Your task to perform on an android device: turn off javascript in the chrome app Image 0: 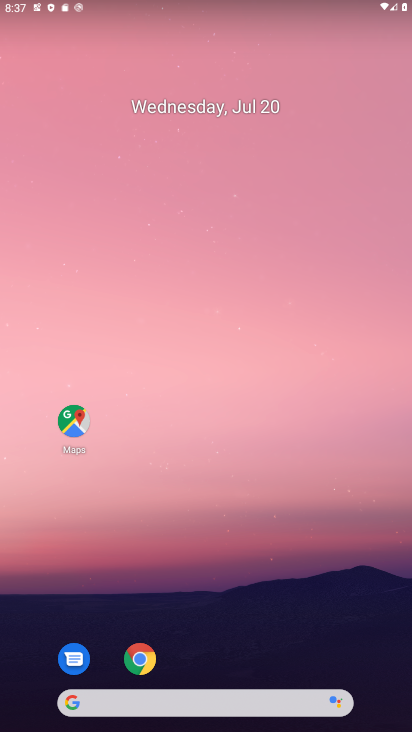
Step 0: drag from (252, 635) to (250, 146)
Your task to perform on an android device: turn off javascript in the chrome app Image 1: 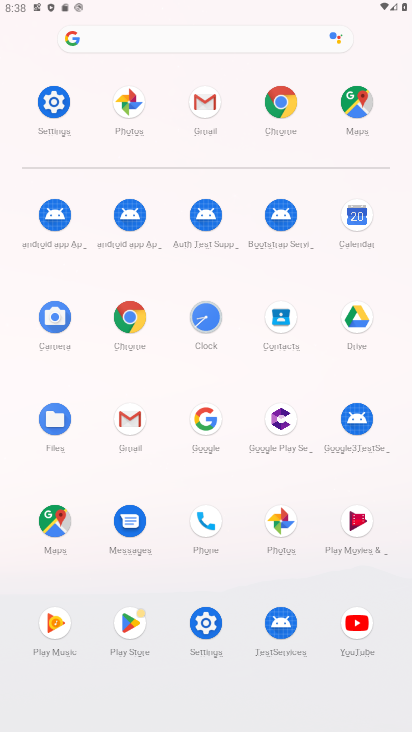
Step 1: click (140, 311)
Your task to perform on an android device: turn off javascript in the chrome app Image 2: 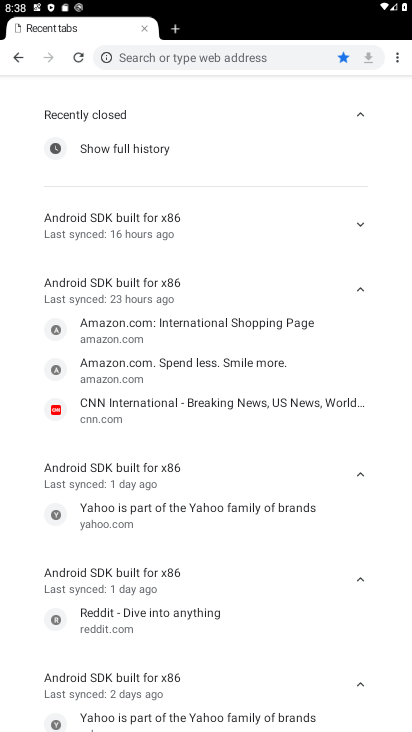
Step 2: drag from (397, 51) to (274, 253)
Your task to perform on an android device: turn off javascript in the chrome app Image 3: 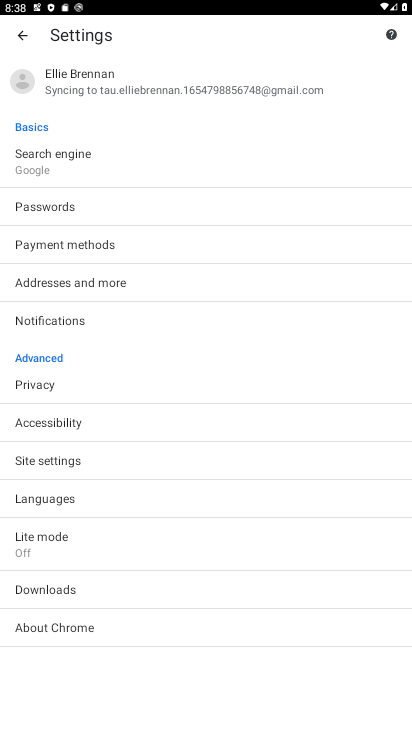
Step 3: click (61, 457)
Your task to perform on an android device: turn off javascript in the chrome app Image 4: 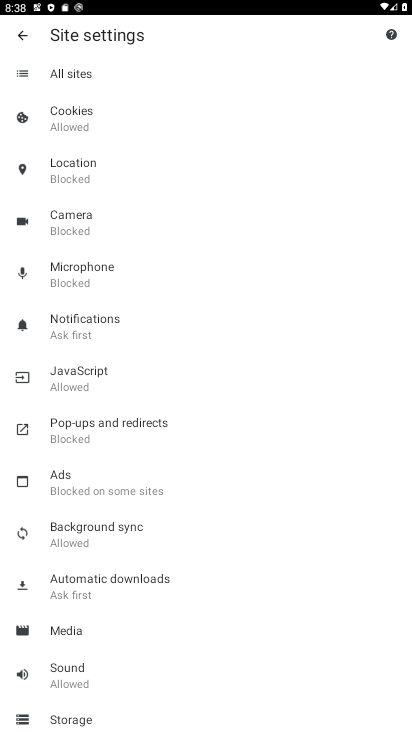
Step 4: click (91, 380)
Your task to perform on an android device: turn off javascript in the chrome app Image 5: 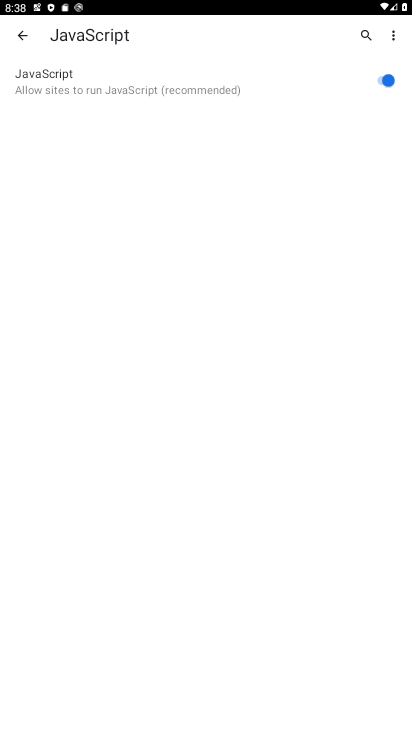
Step 5: click (293, 95)
Your task to perform on an android device: turn off javascript in the chrome app Image 6: 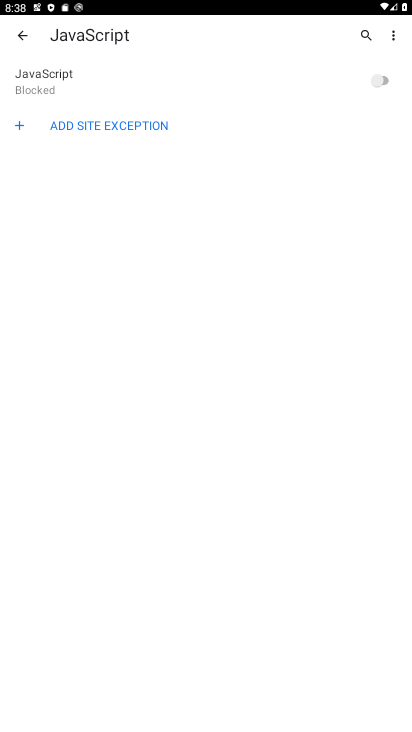
Step 6: task complete